Your task to perform on an android device: turn off smart reply in the gmail app Image 0: 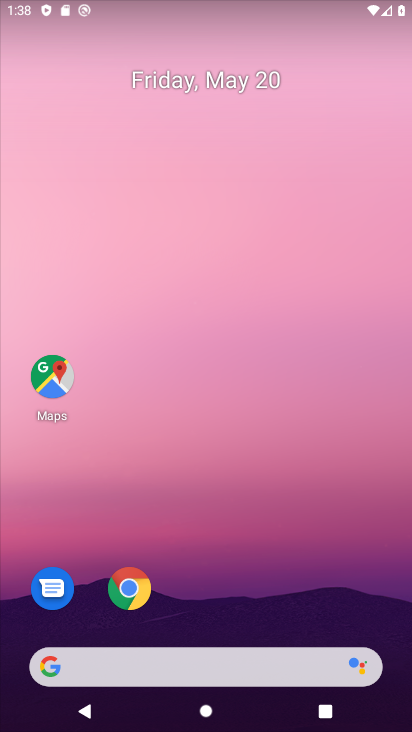
Step 0: drag from (237, 689) to (185, 2)
Your task to perform on an android device: turn off smart reply in the gmail app Image 1: 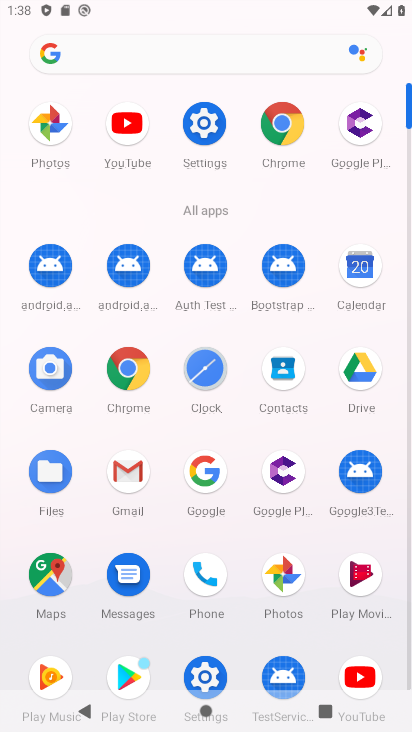
Step 1: click (114, 471)
Your task to perform on an android device: turn off smart reply in the gmail app Image 2: 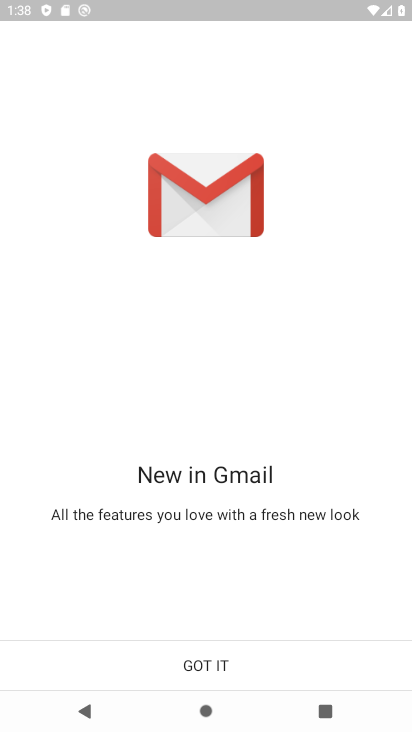
Step 2: click (230, 663)
Your task to perform on an android device: turn off smart reply in the gmail app Image 3: 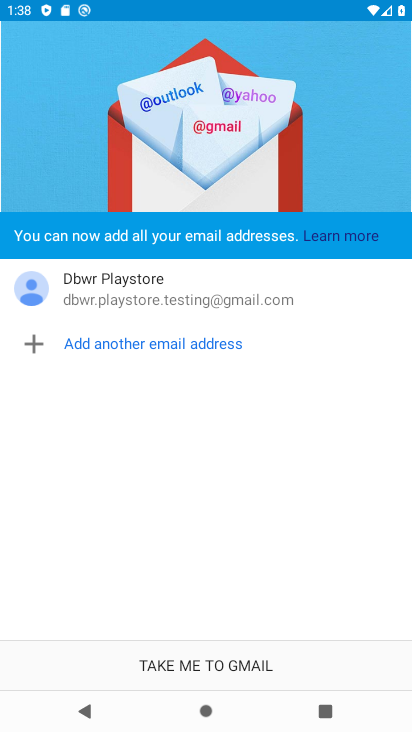
Step 3: click (224, 664)
Your task to perform on an android device: turn off smart reply in the gmail app Image 4: 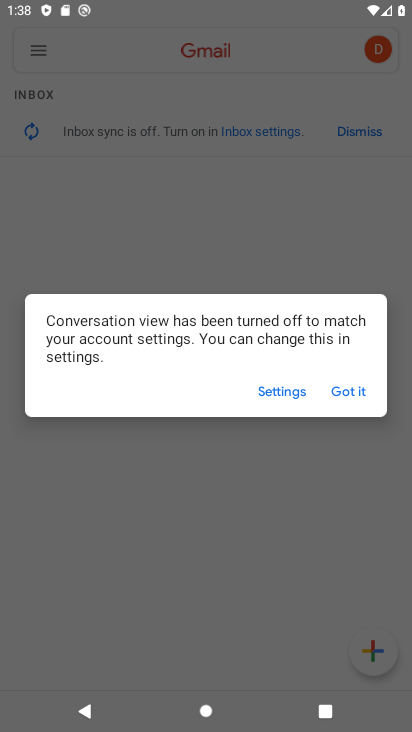
Step 4: click (280, 387)
Your task to perform on an android device: turn off smart reply in the gmail app Image 5: 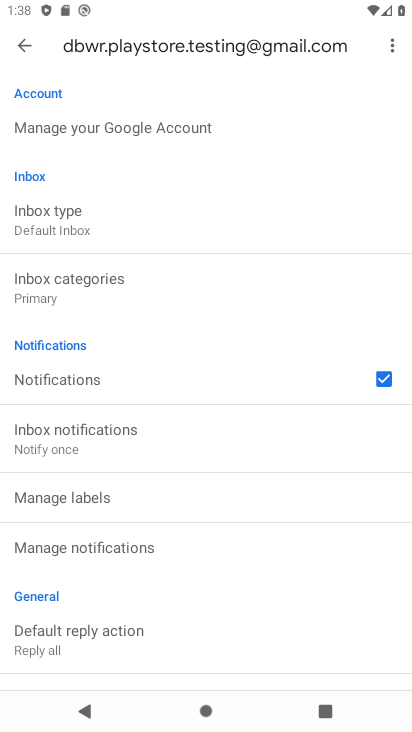
Step 5: drag from (92, 426) to (0, 202)
Your task to perform on an android device: turn off smart reply in the gmail app Image 6: 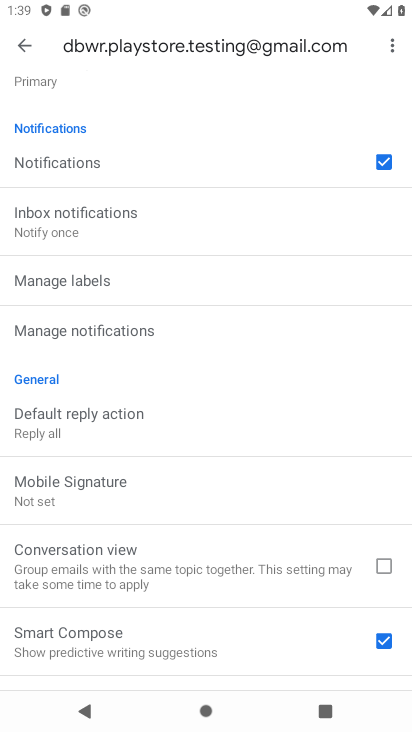
Step 6: drag from (173, 537) to (148, 76)
Your task to perform on an android device: turn off smart reply in the gmail app Image 7: 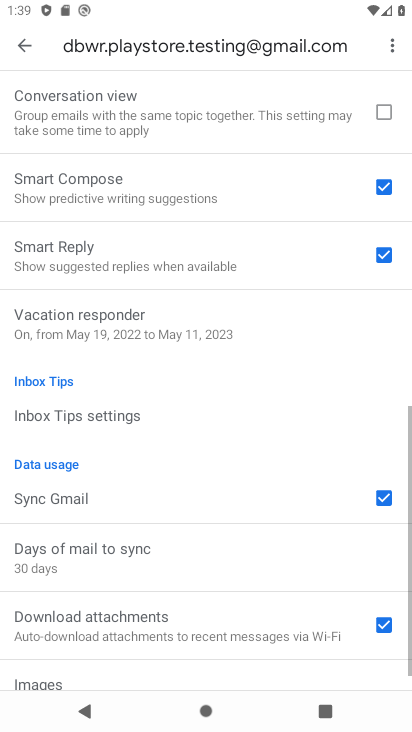
Step 7: drag from (249, 354) to (242, 46)
Your task to perform on an android device: turn off smart reply in the gmail app Image 8: 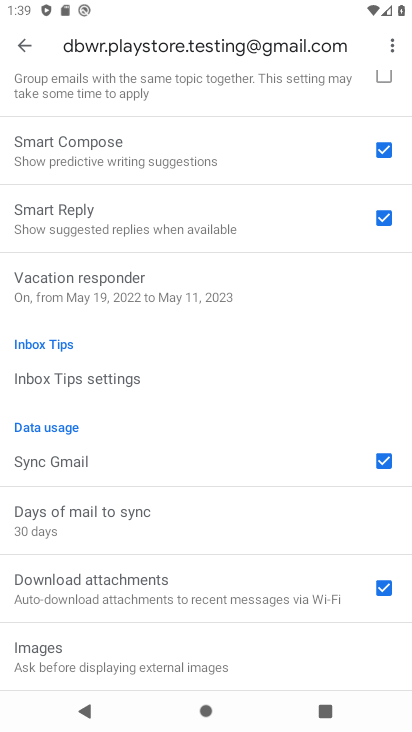
Step 8: click (108, 295)
Your task to perform on an android device: turn off smart reply in the gmail app Image 9: 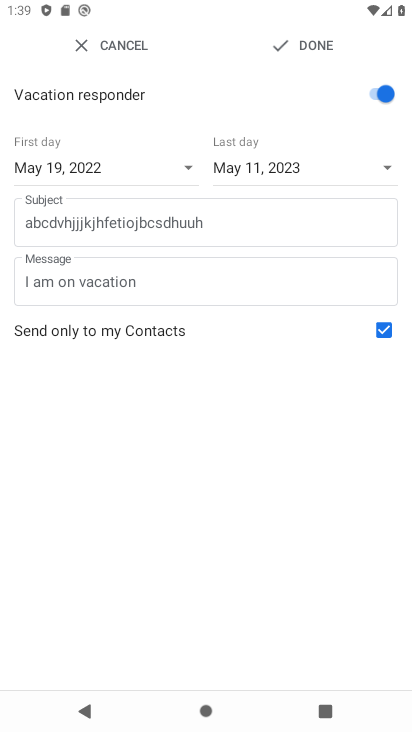
Step 9: press back button
Your task to perform on an android device: turn off smart reply in the gmail app Image 10: 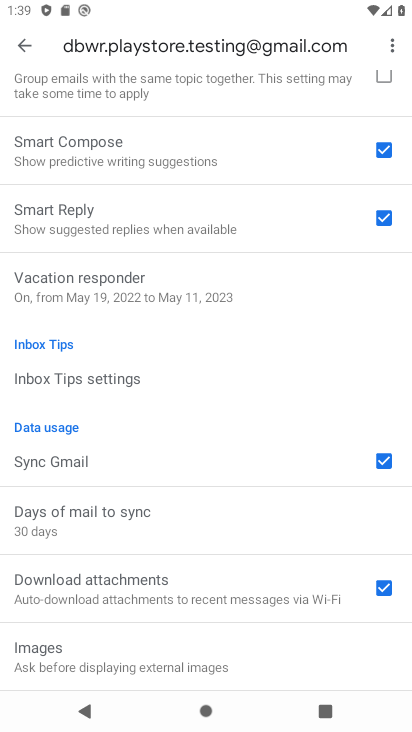
Step 10: click (382, 215)
Your task to perform on an android device: turn off smart reply in the gmail app Image 11: 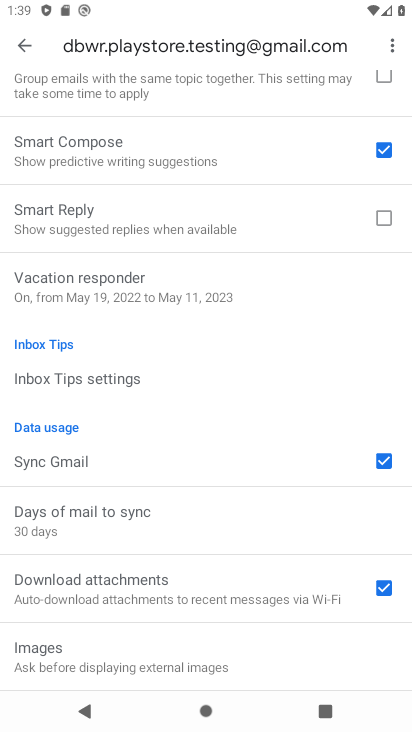
Step 11: task complete